Your task to perform on an android device: turn off sleep mode Image 0: 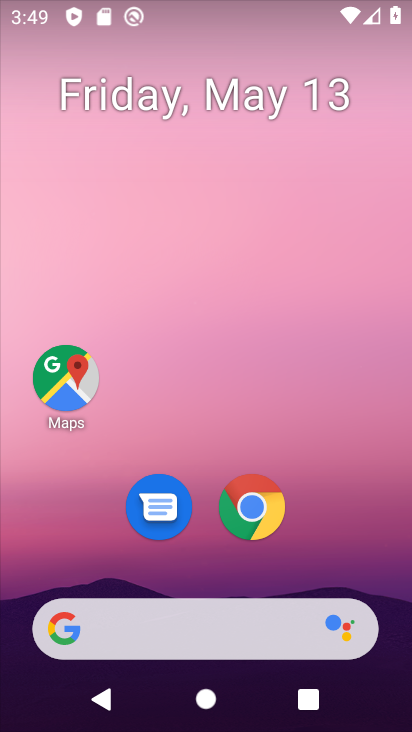
Step 0: drag from (338, 494) to (341, 110)
Your task to perform on an android device: turn off sleep mode Image 1: 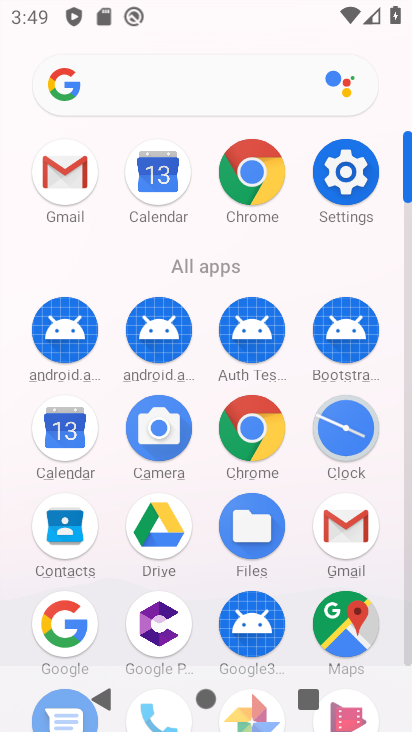
Step 1: click (374, 168)
Your task to perform on an android device: turn off sleep mode Image 2: 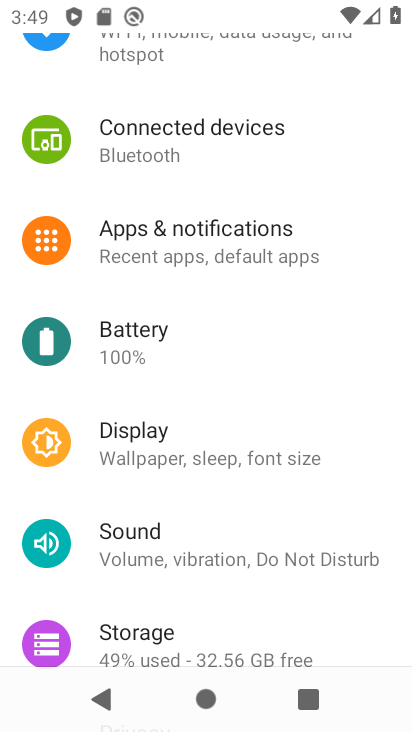
Step 2: drag from (215, 253) to (204, 519)
Your task to perform on an android device: turn off sleep mode Image 3: 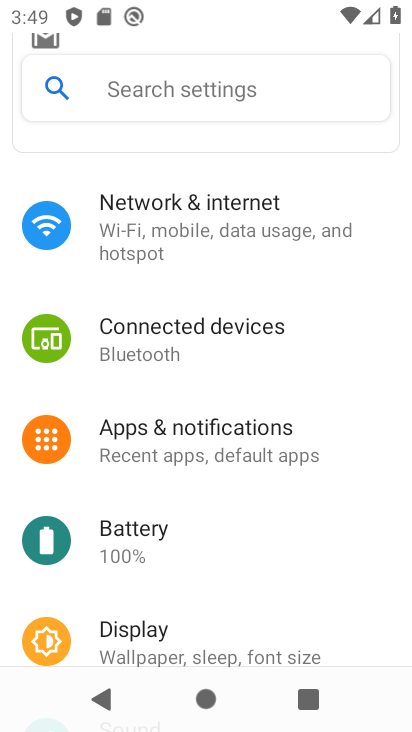
Step 3: drag from (184, 512) to (260, 196)
Your task to perform on an android device: turn off sleep mode Image 4: 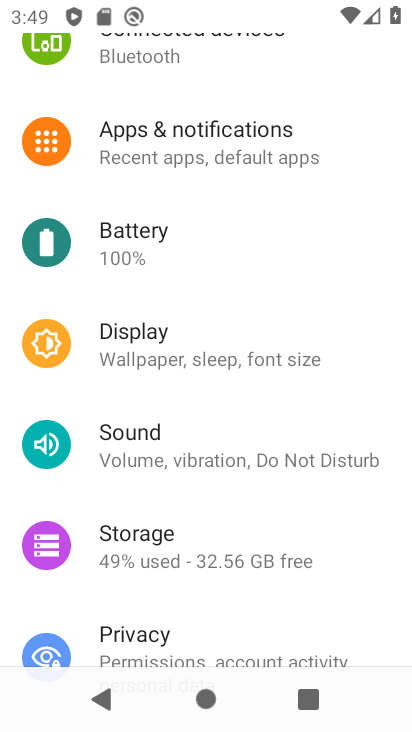
Step 4: click (155, 449)
Your task to perform on an android device: turn off sleep mode Image 5: 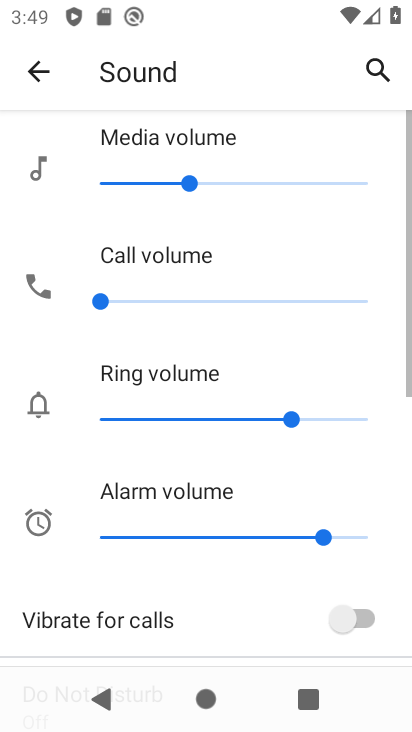
Step 5: click (41, 77)
Your task to perform on an android device: turn off sleep mode Image 6: 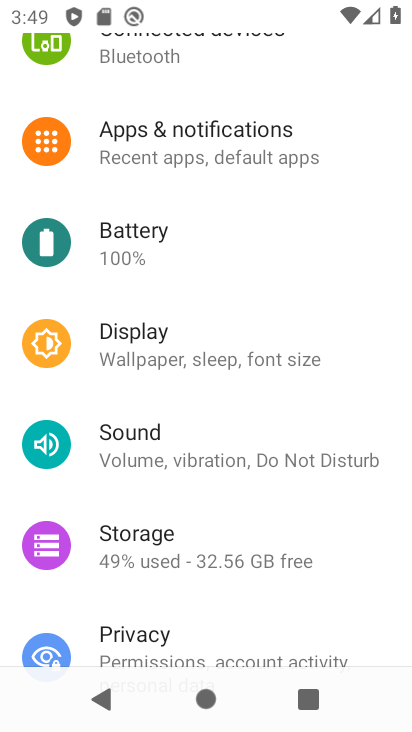
Step 6: click (154, 346)
Your task to perform on an android device: turn off sleep mode Image 7: 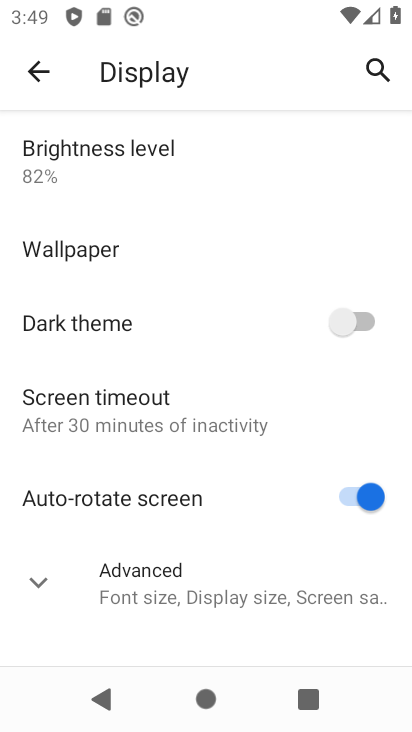
Step 7: click (198, 424)
Your task to perform on an android device: turn off sleep mode Image 8: 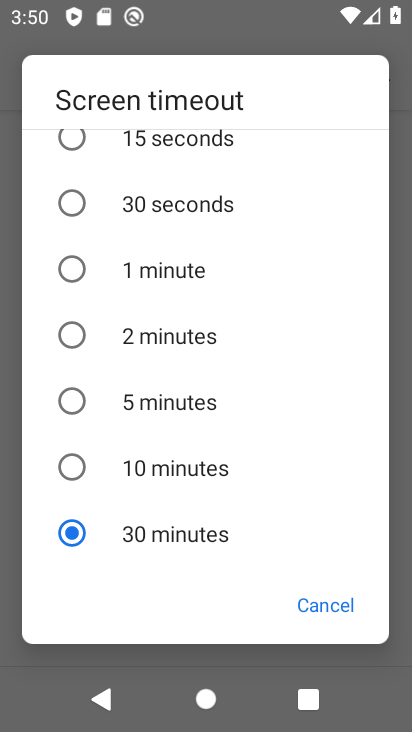
Step 8: task complete